Your task to perform on an android device: Go to CNN.com Image 0: 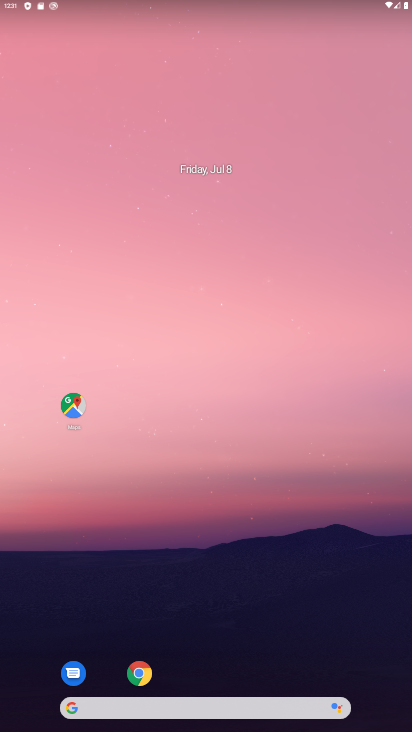
Step 0: drag from (215, 673) to (249, 80)
Your task to perform on an android device: Go to CNN.com Image 1: 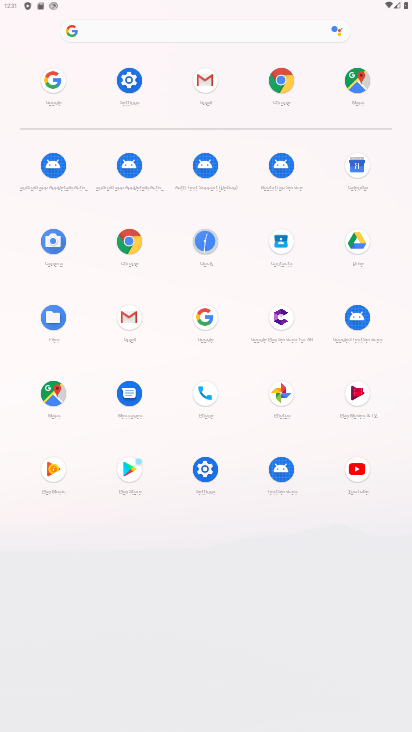
Step 1: click (207, 319)
Your task to perform on an android device: Go to CNN.com Image 2: 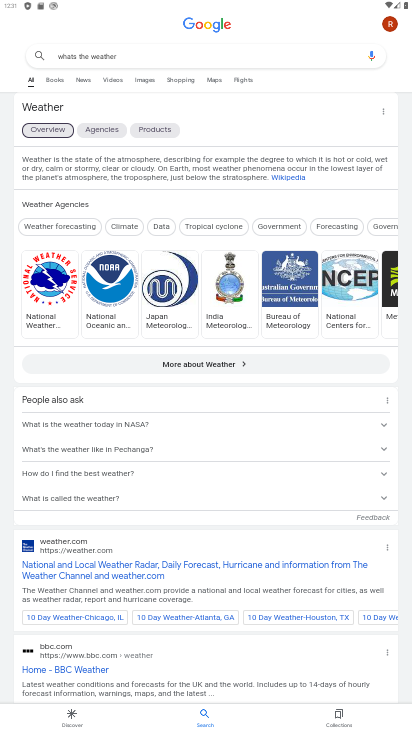
Step 2: click (212, 43)
Your task to perform on an android device: Go to CNN.com Image 3: 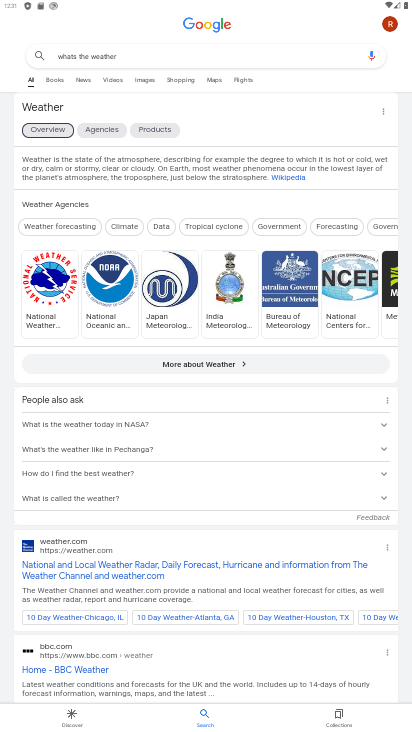
Step 3: click (201, 58)
Your task to perform on an android device: Go to CNN.com Image 4: 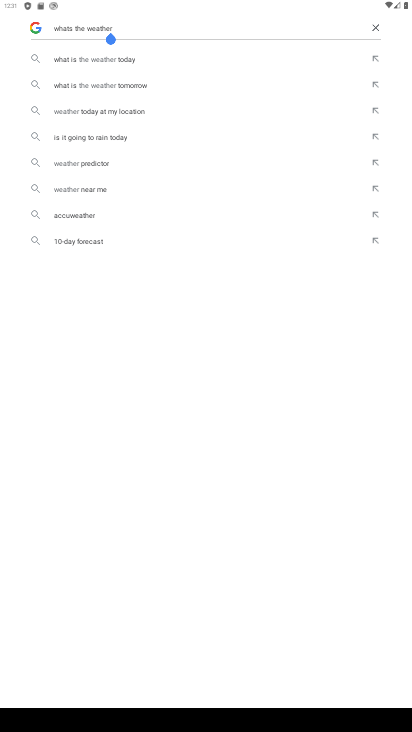
Step 4: click (372, 26)
Your task to perform on an android device: Go to CNN.com Image 5: 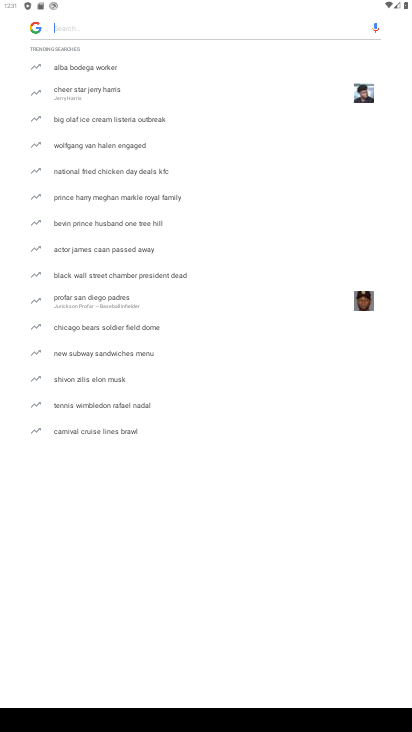
Step 5: type "cnn.com"
Your task to perform on an android device: Go to CNN.com Image 6: 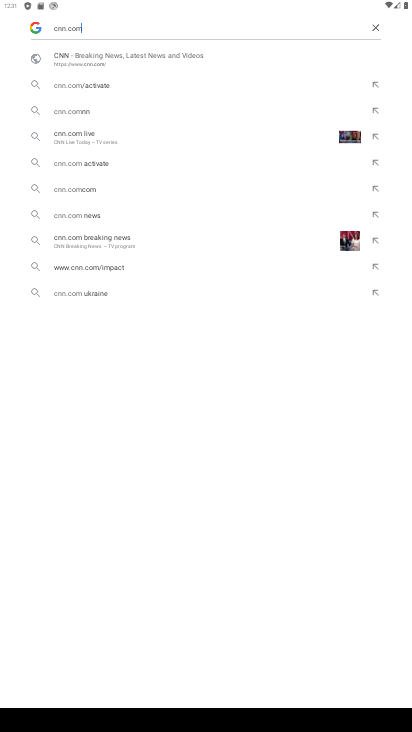
Step 6: click (141, 62)
Your task to perform on an android device: Go to CNN.com Image 7: 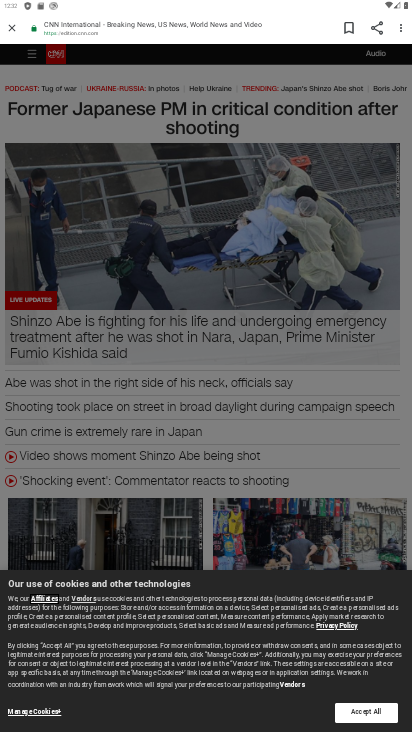
Step 7: task complete